Your task to perform on an android device: open app "Google Calendar" Image 0: 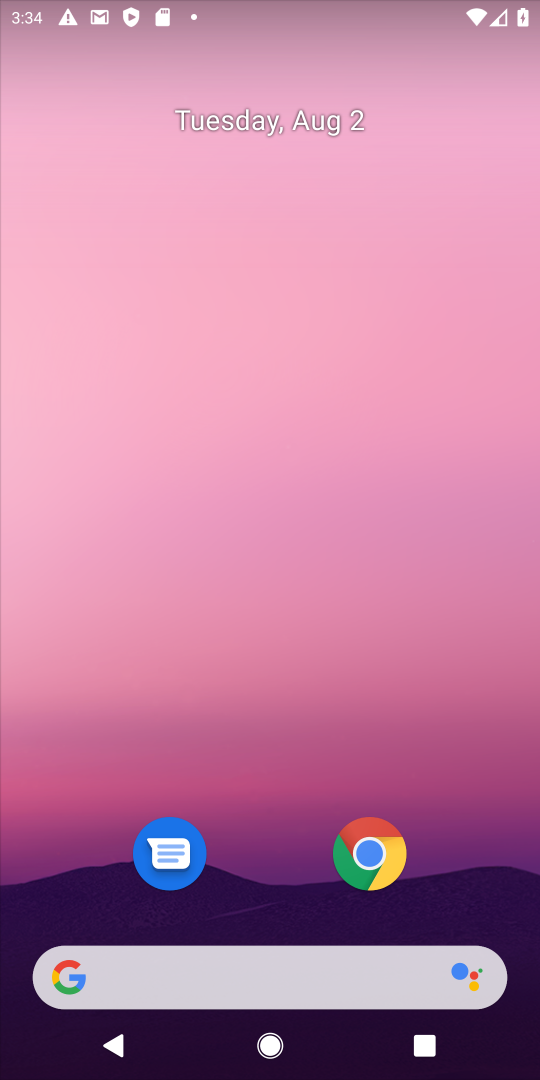
Step 0: drag from (333, 1010) to (350, 269)
Your task to perform on an android device: open app "Google Calendar" Image 1: 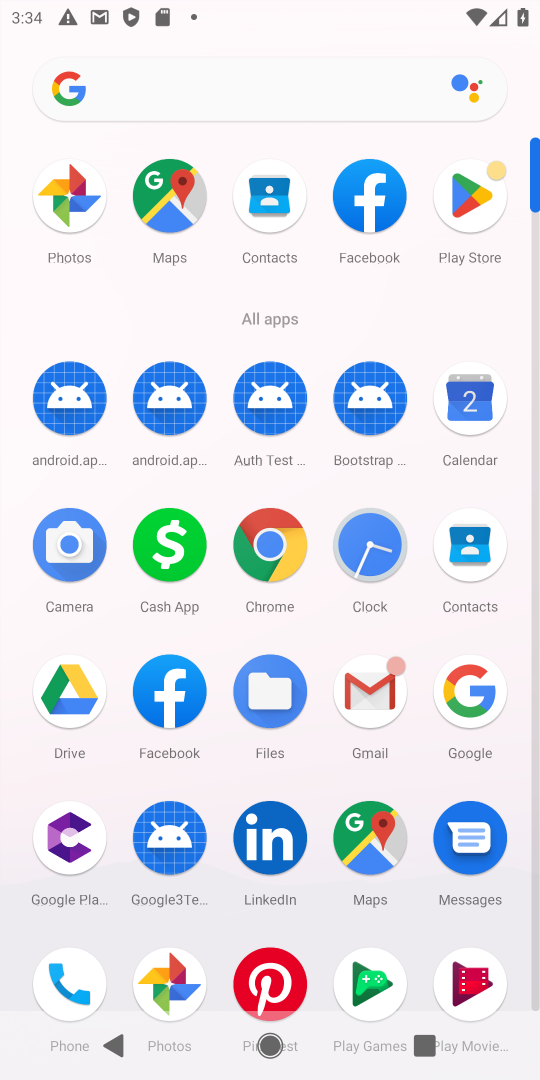
Step 1: click (472, 418)
Your task to perform on an android device: open app "Google Calendar" Image 2: 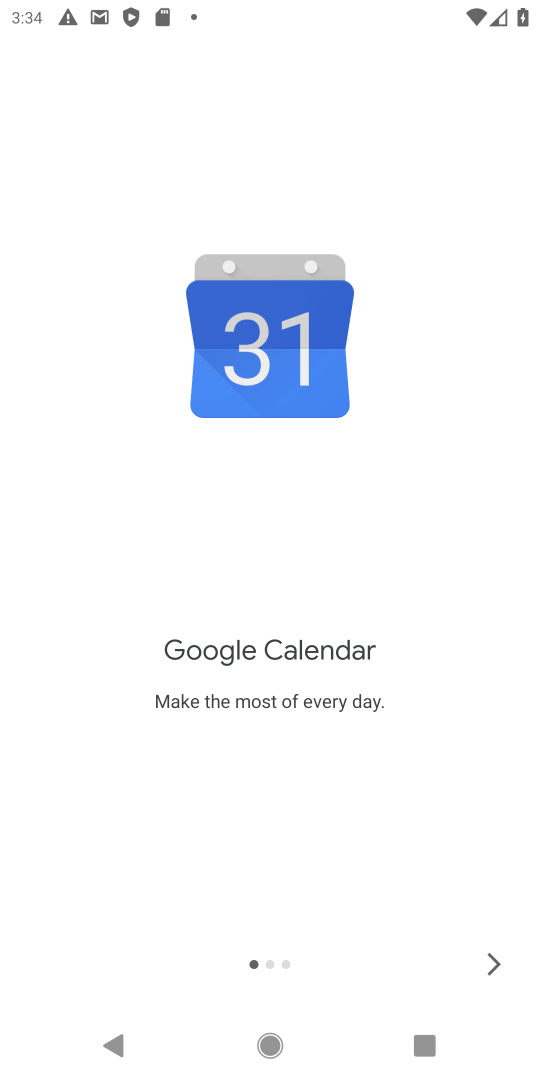
Step 2: click (498, 962)
Your task to perform on an android device: open app "Google Calendar" Image 3: 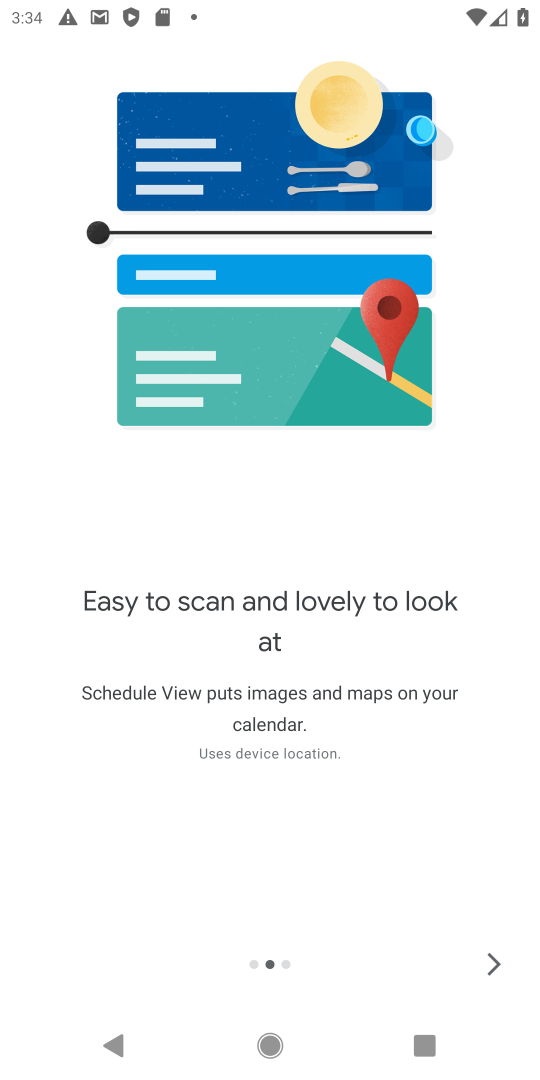
Step 3: click (495, 955)
Your task to perform on an android device: open app "Google Calendar" Image 4: 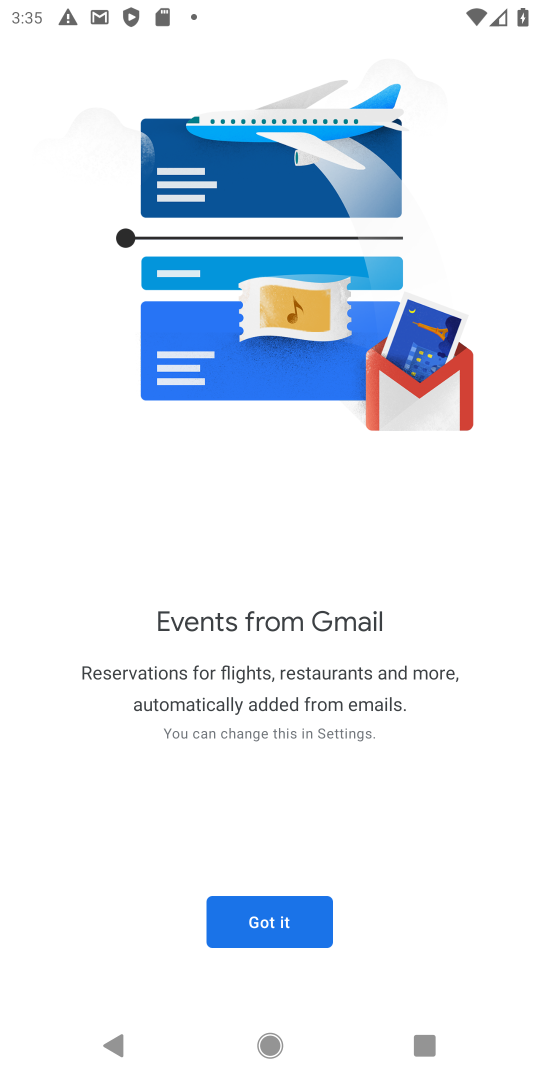
Step 4: click (273, 928)
Your task to perform on an android device: open app "Google Calendar" Image 5: 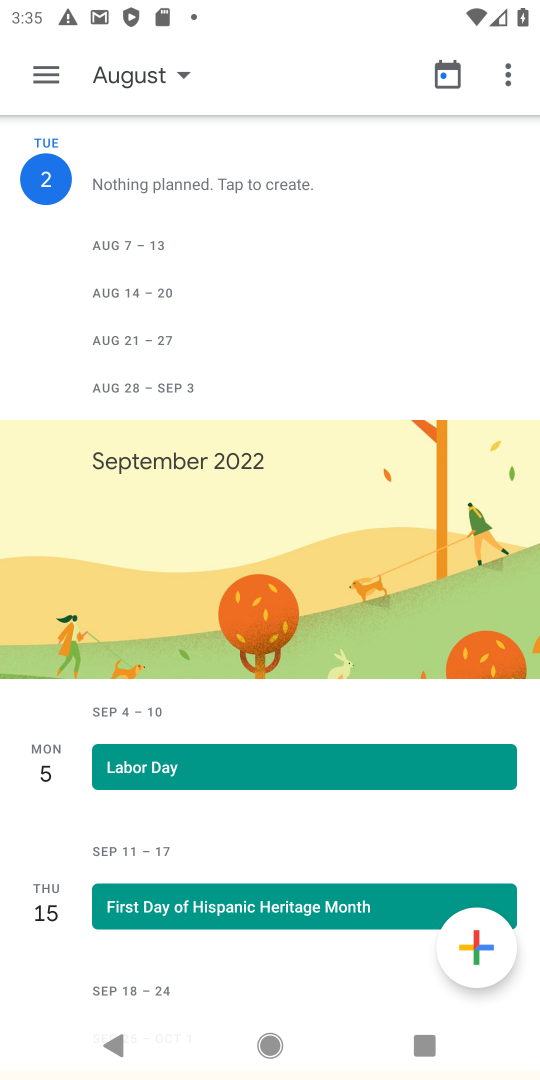
Step 5: task complete